Your task to perform on an android device: What's the weather today? Image 0: 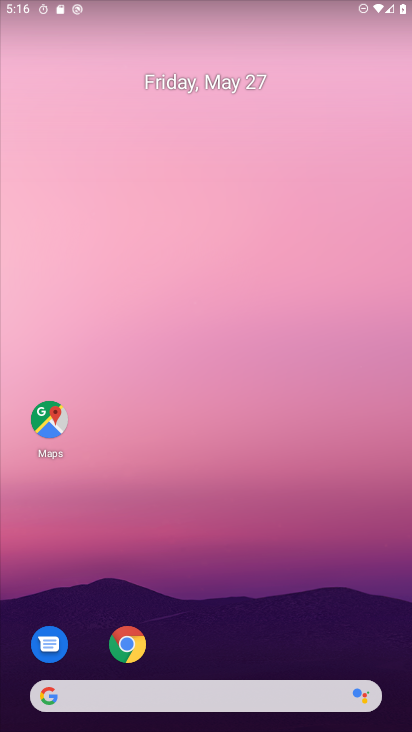
Step 0: click (188, 689)
Your task to perform on an android device: What's the weather today? Image 1: 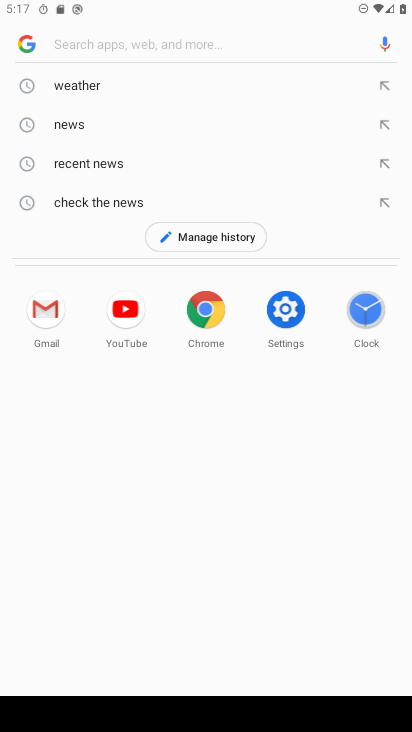
Step 1: click (119, 78)
Your task to perform on an android device: What's the weather today? Image 2: 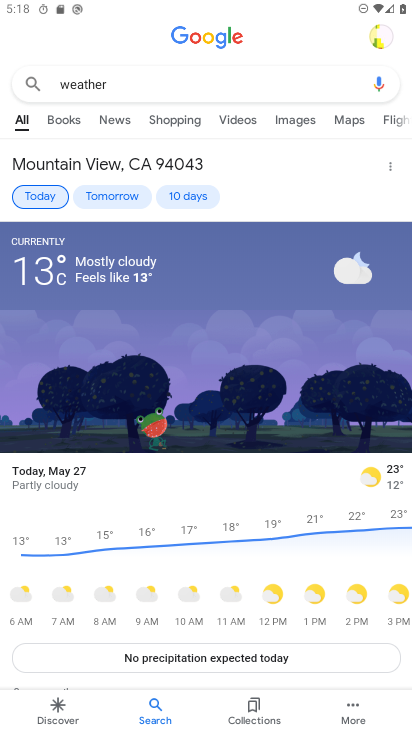
Step 2: task complete